Your task to perform on an android device: What is the recent news? Image 0: 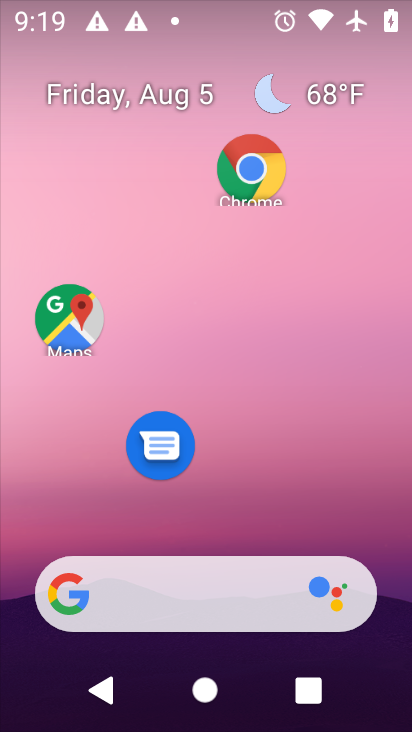
Step 0: drag from (217, 508) to (190, 93)
Your task to perform on an android device: What is the recent news? Image 1: 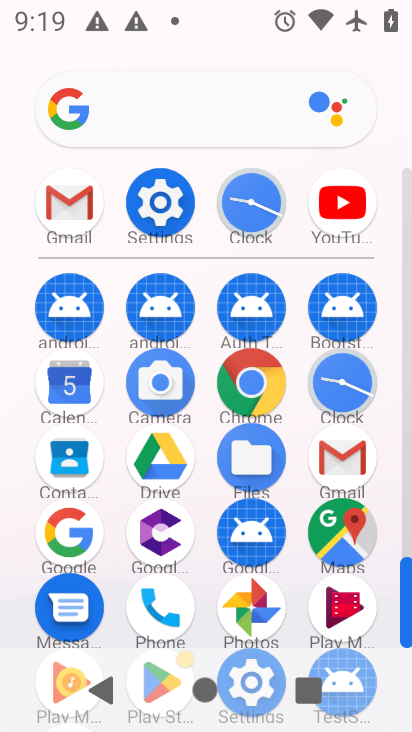
Step 1: click (58, 518)
Your task to perform on an android device: What is the recent news? Image 2: 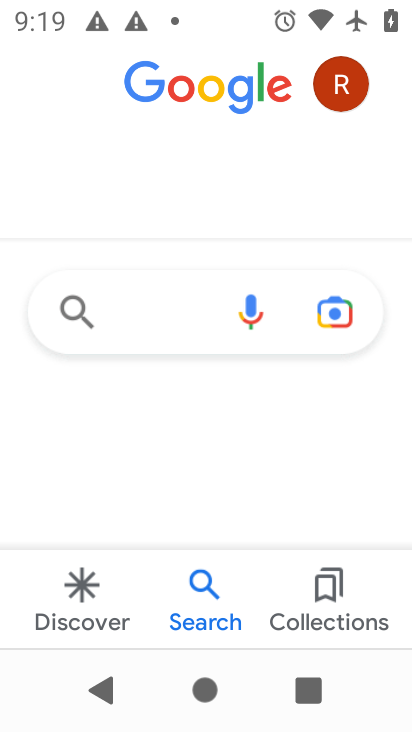
Step 2: click (141, 319)
Your task to perform on an android device: What is the recent news? Image 3: 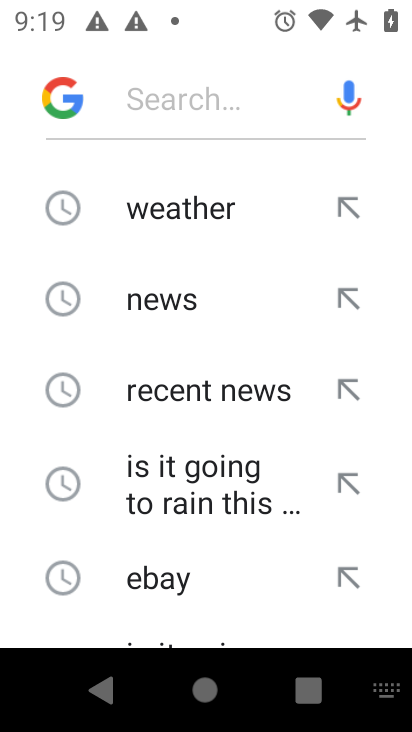
Step 3: click (166, 316)
Your task to perform on an android device: What is the recent news? Image 4: 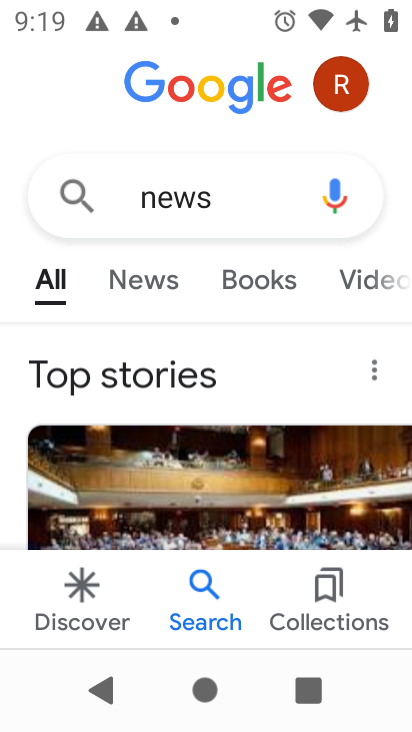
Step 4: click (131, 269)
Your task to perform on an android device: What is the recent news? Image 5: 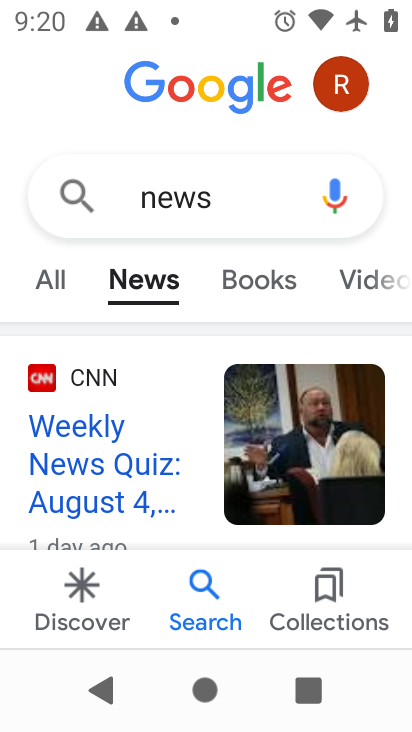
Step 5: task complete